Your task to perform on an android device: set an alarm Image 0: 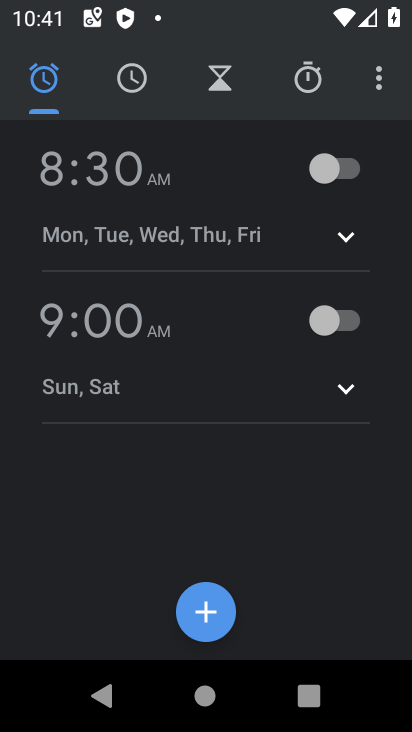
Step 0: click (75, 177)
Your task to perform on an android device: set an alarm Image 1: 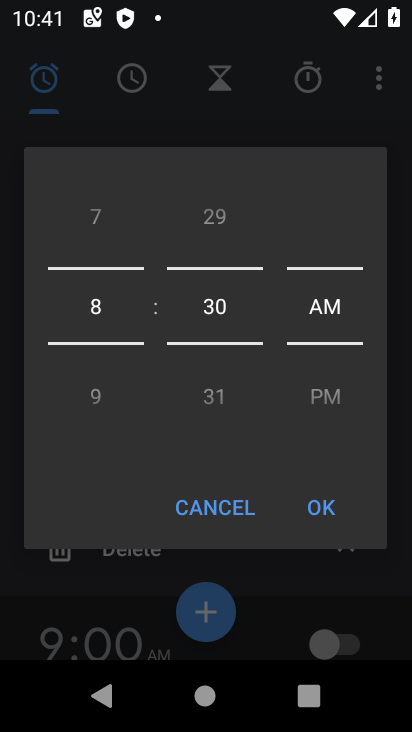
Step 1: drag from (109, 247) to (91, 444)
Your task to perform on an android device: set an alarm Image 2: 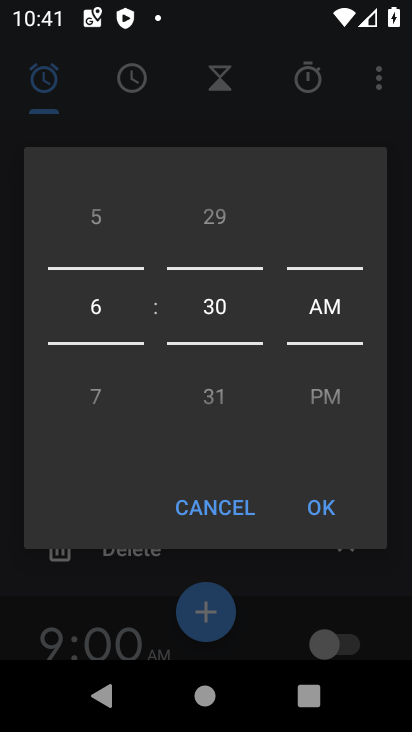
Step 2: click (320, 507)
Your task to perform on an android device: set an alarm Image 3: 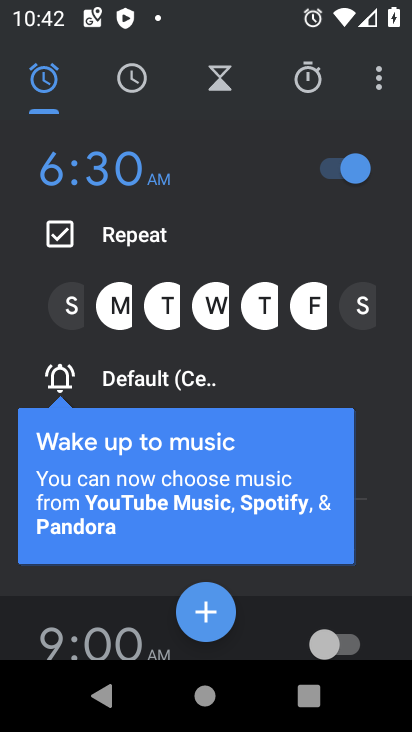
Step 3: click (358, 305)
Your task to perform on an android device: set an alarm Image 4: 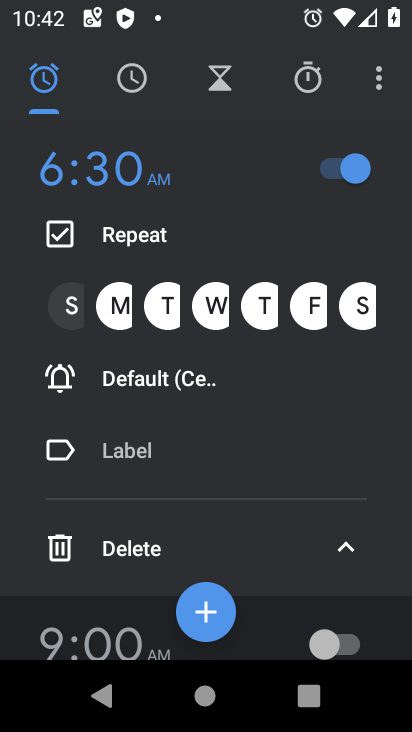
Step 4: click (341, 543)
Your task to perform on an android device: set an alarm Image 5: 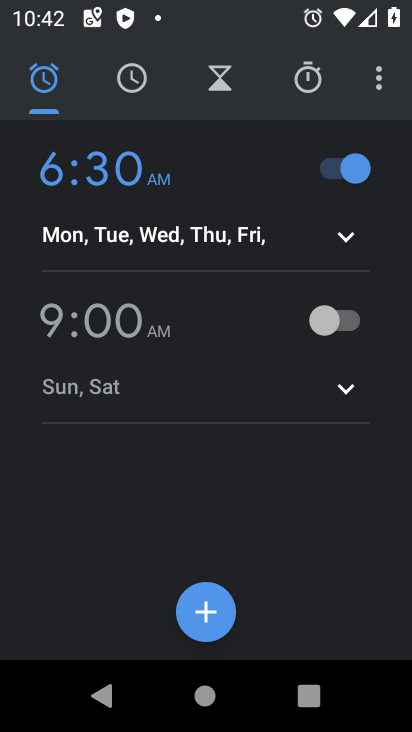
Step 5: task complete